Your task to perform on an android device: Open calendar and show me the third week of next month Image 0: 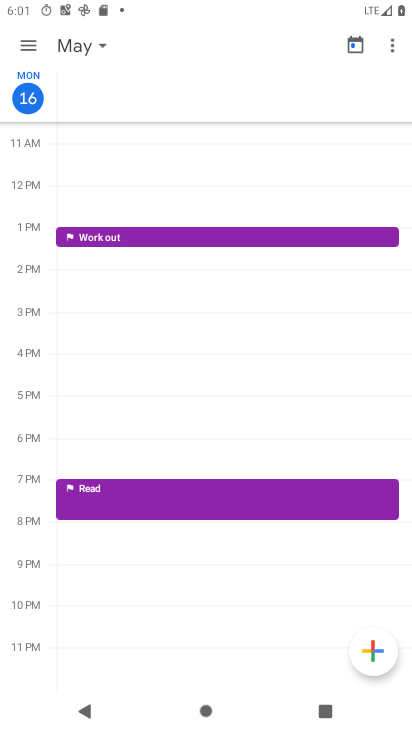
Step 0: press home button
Your task to perform on an android device: Open calendar and show me the third week of next month Image 1: 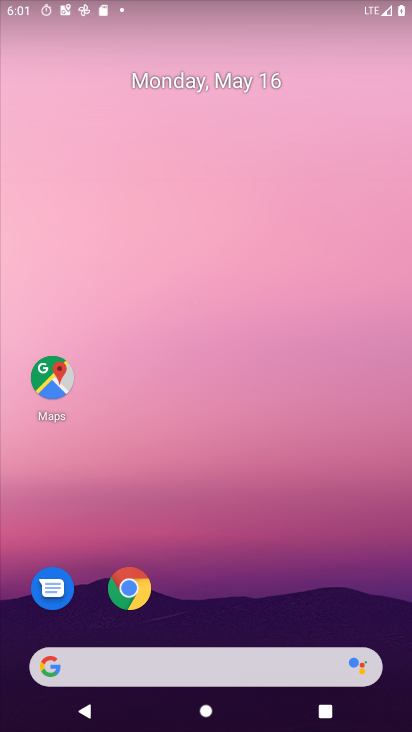
Step 1: drag from (301, 506) to (284, 2)
Your task to perform on an android device: Open calendar and show me the third week of next month Image 2: 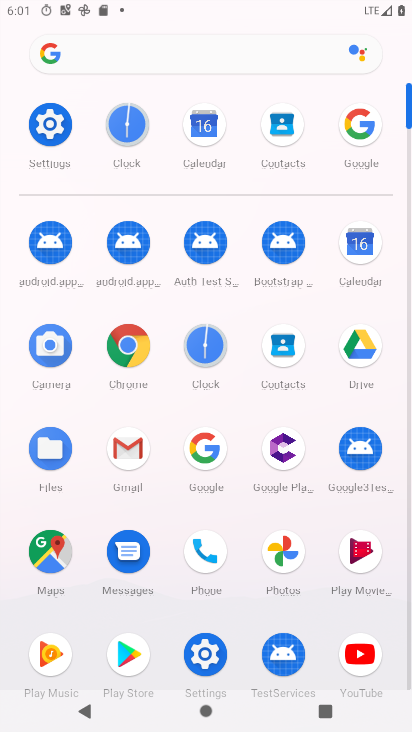
Step 2: click (191, 122)
Your task to perform on an android device: Open calendar and show me the third week of next month Image 3: 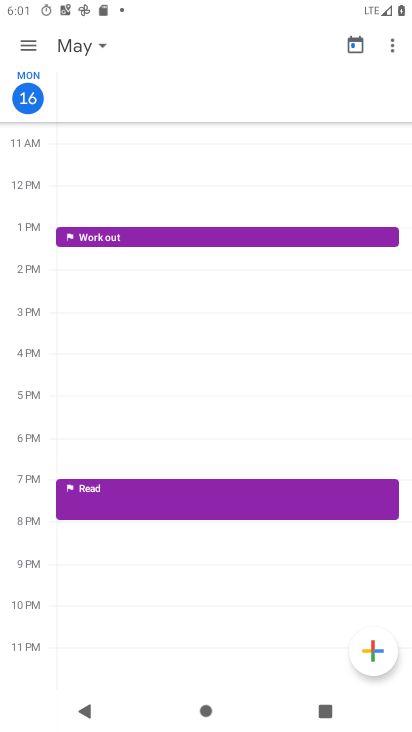
Step 3: click (98, 43)
Your task to perform on an android device: Open calendar and show me the third week of next month Image 4: 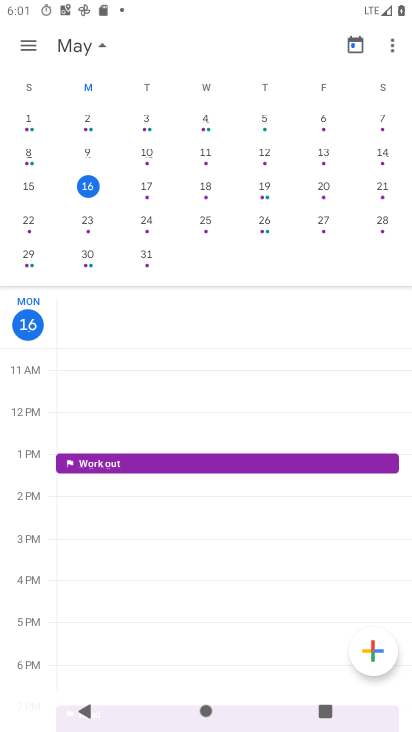
Step 4: drag from (357, 193) to (5, 171)
Your task to perform on an android device: Open calendar and show me the third week of next month Image 5: 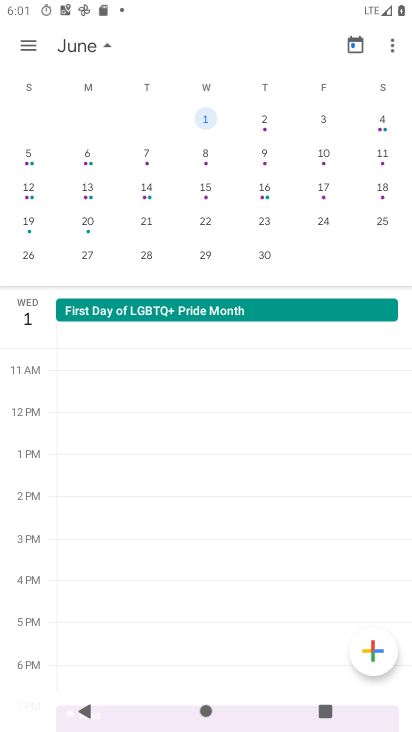
Step 5: click (34, 193)
Your task to perform on an android device: Open calendar and show me the third week of next month Image 6: 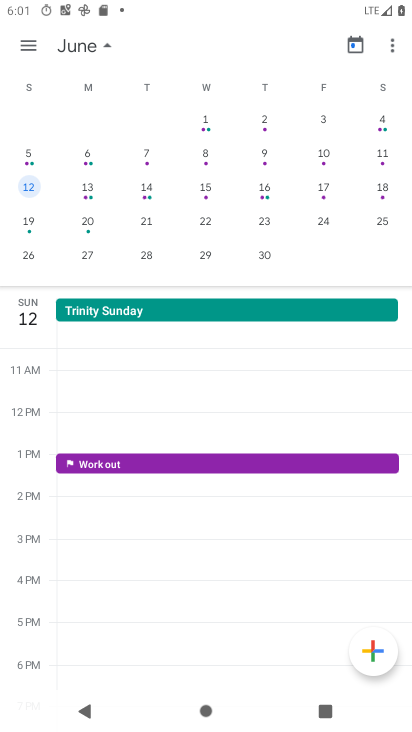
Step 6: task complete